Your task to perform on an android device: Do I have any events this weekend? Image 0: 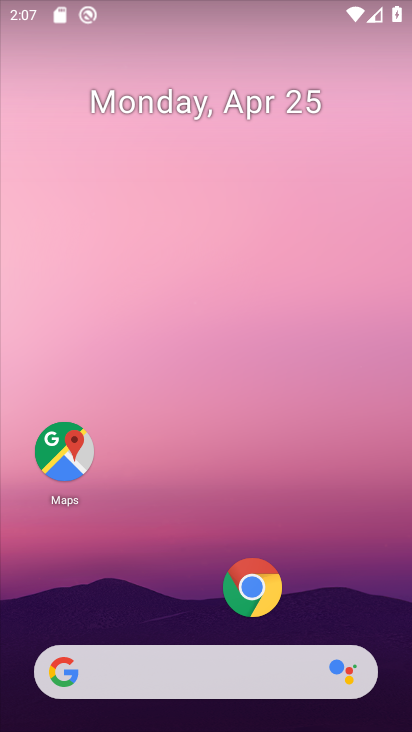
Step 0: drag from (189, 582) to (171, 67)
Your task to perform on an android device: Do I have any events this weekend? Image 1: 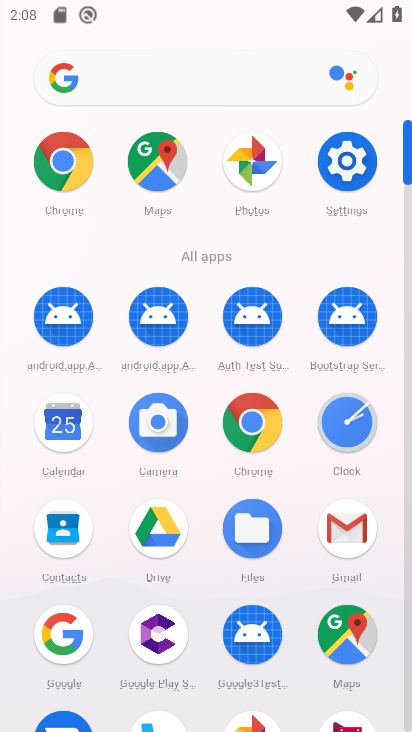
Step 1: click (57, 419)
Your task to perform on an android device: Do I have any events this weekend? Image 2: 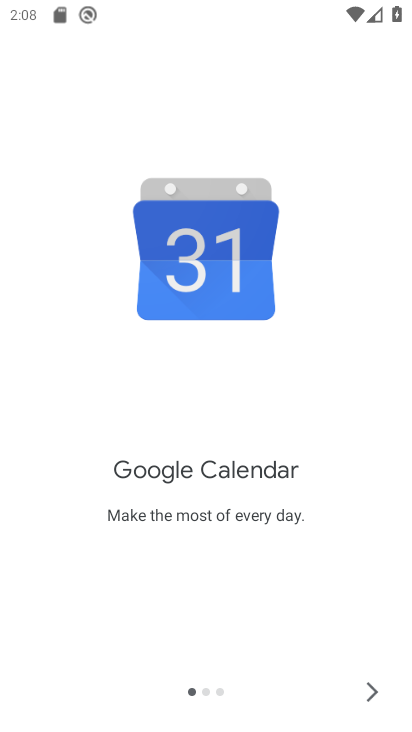
Step 2: click (359, 682)
Your task to perform on an android device: Do I have any events this weekend? Image 3: 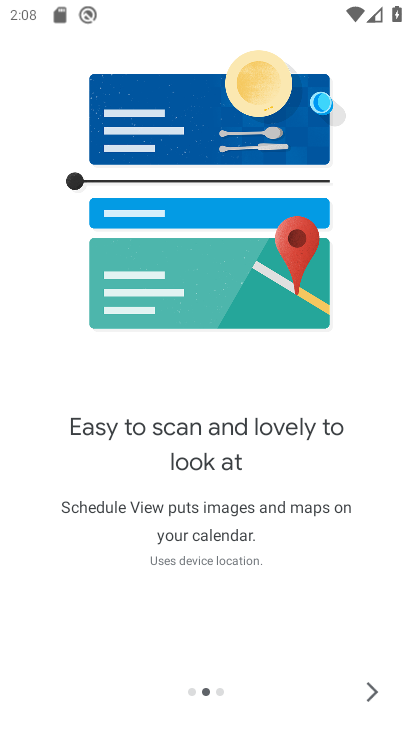
Step 3: click (359, 682)
Your task to perform on an android device: Do I have any events this weekend? Image 4: 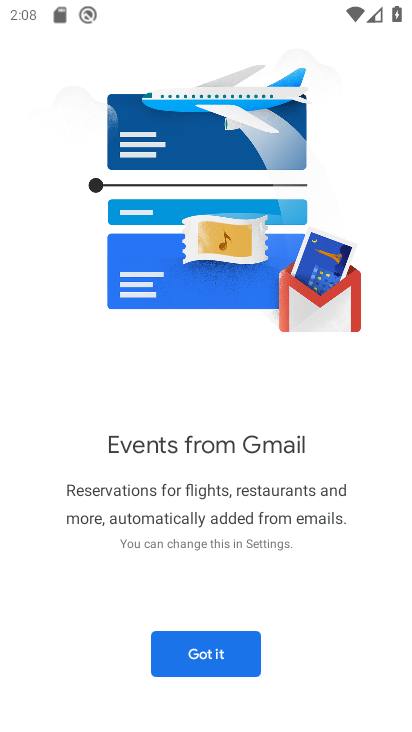
Step 4: click (213, 656)
Your task to perform on an android device: Do I have any events this weekend? Image 5: 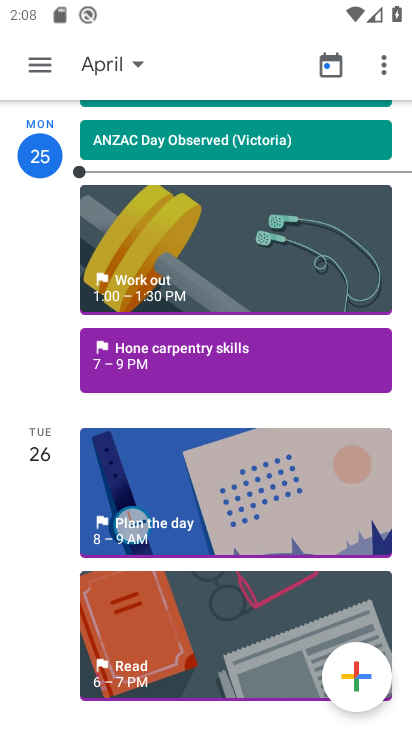
Step 5: drag from (61, 615) to (54, 223)
Your task to perform on an android device: Do I have any events this weekend? Image 6: 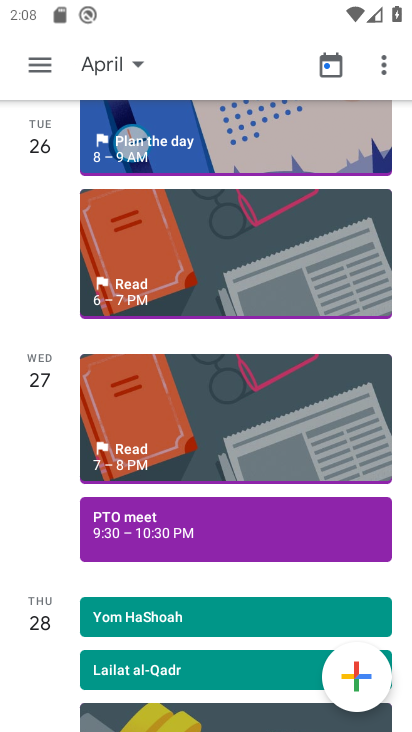
Step 6: drag from (45, 478) to (43, 222)
Your task to perform on an android device: Do I have any events this weekend? Image 7: 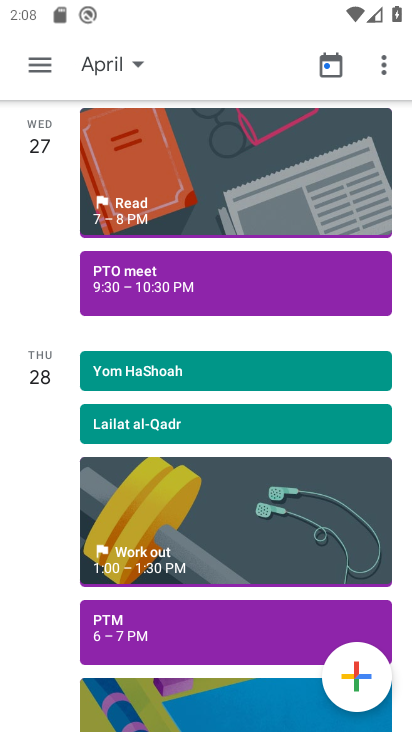
Step 7: drag from (46, 493) to (43, 222)
Your task to perform on an android device: Do I have any events this weekend? Image 8: 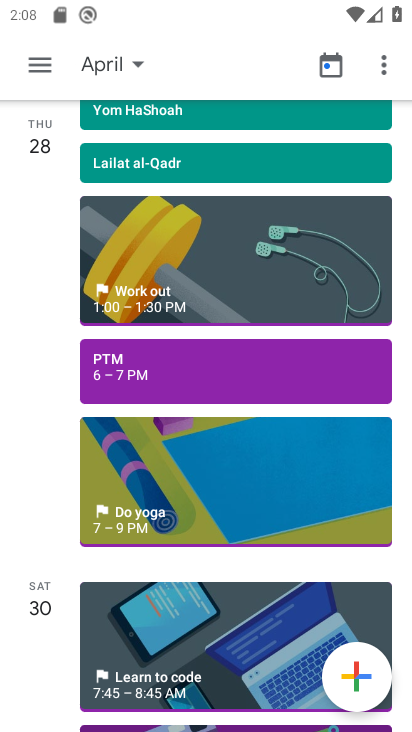
Step 8: click (39, 53)
Your task to perform on an android device: Do I have any events this weekend? Image 9: 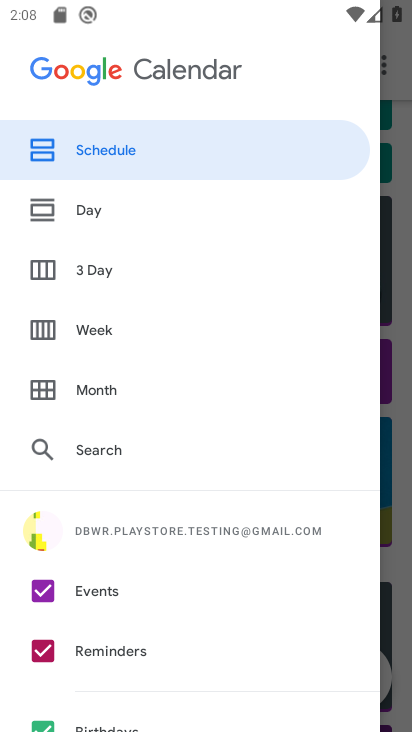
Step 9: click (42, 638)
Your task to perform on an android device: Do I have any events this weekend? Image 10: 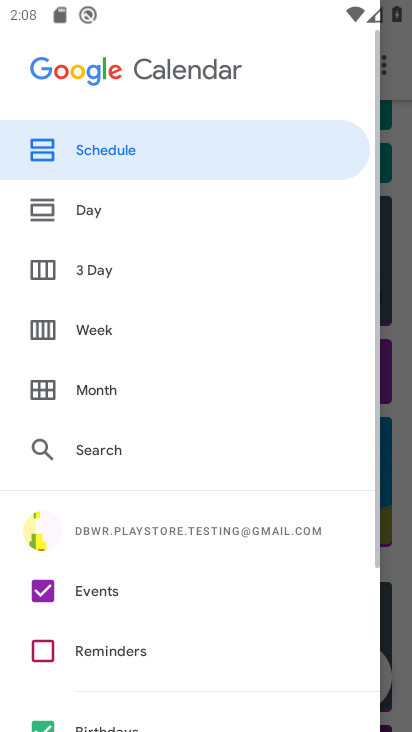
Step 10: drag from (133, 658) to (157, 267)
Your task to perform on an android device: Do I have any events this weekend? Image 11: 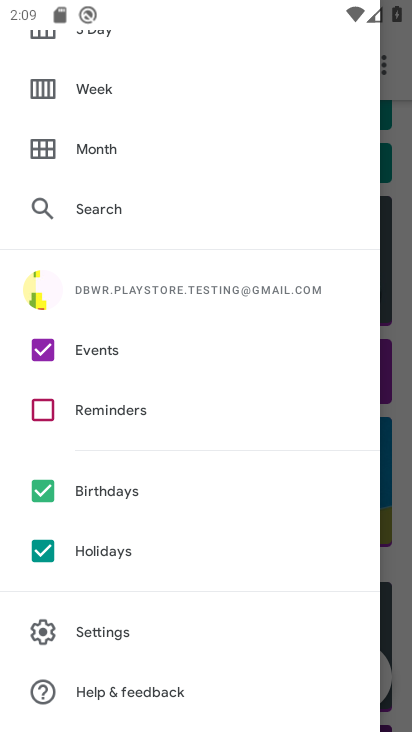
Step 11: click (45, 491)
Your task to perform on an android device: Do I have any events this weekend? Image 12: 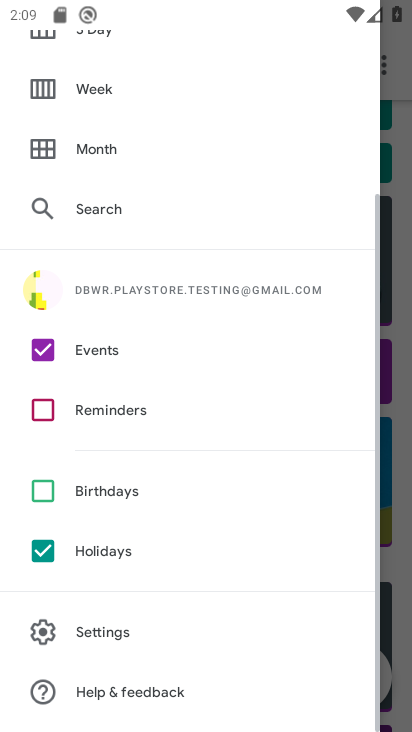
Step 12: click (45, 549)
Your task to perform on an android device: Do I have any events this weekend? Image 13: 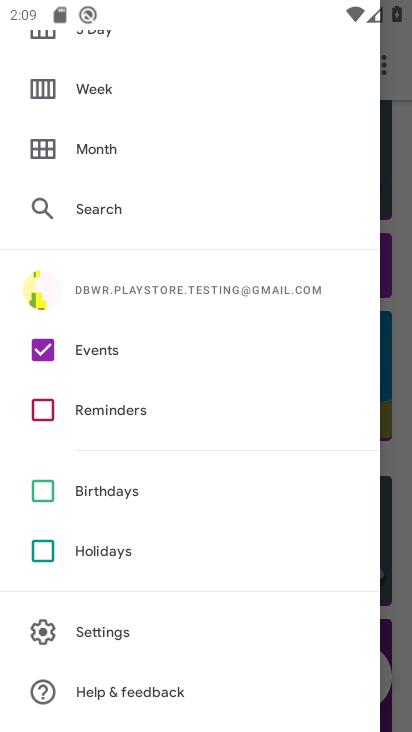
Step 13: drag from (130, 330) to (126, 686)
Your task to perform on an android device: Do I have any events this weekend? Image 14: 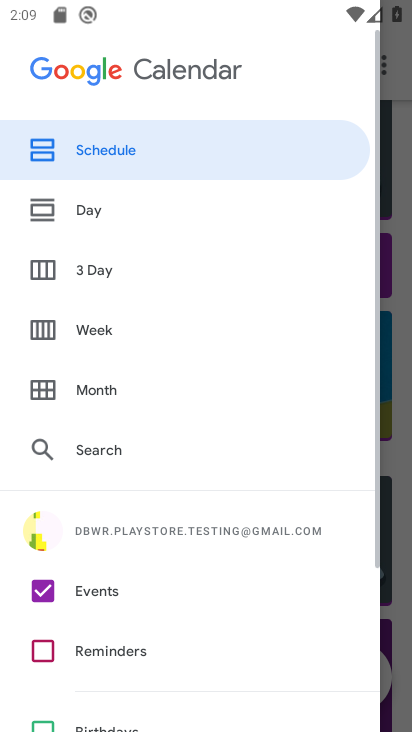
Step 14: click (96, 139)
Your task to perform on an android device: Do I have any events this weekend? Image 15: 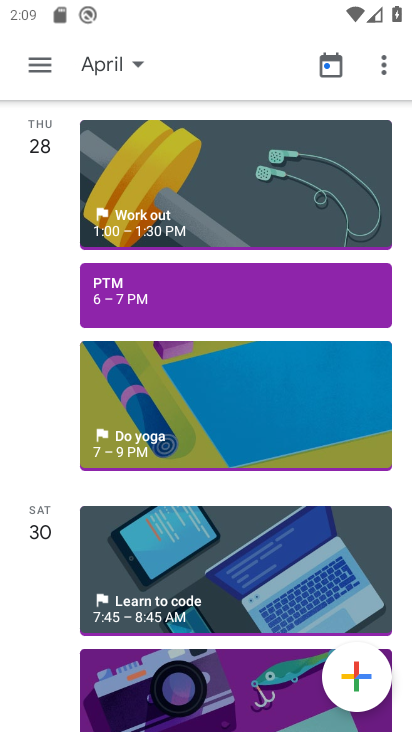
Step 15: task complete